Your task to perform on an android device: change notifications settings Image 0: 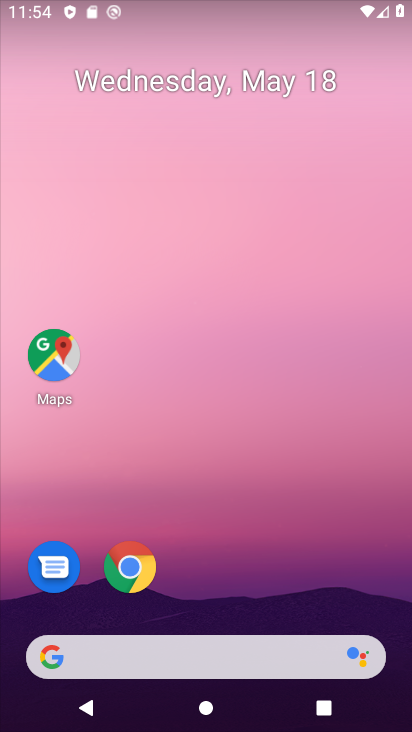
Step 0: drag from (192, 586) to (258, 312)
Your task to perform on an android device: change notifications settings Image 1: 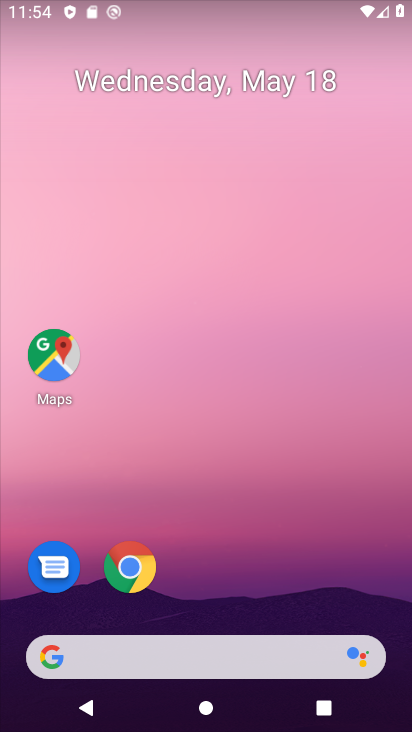
Step 1: drag from (258, 549) to (285, 204)
Your task to perform on an android device: change notifications settings Image 2: 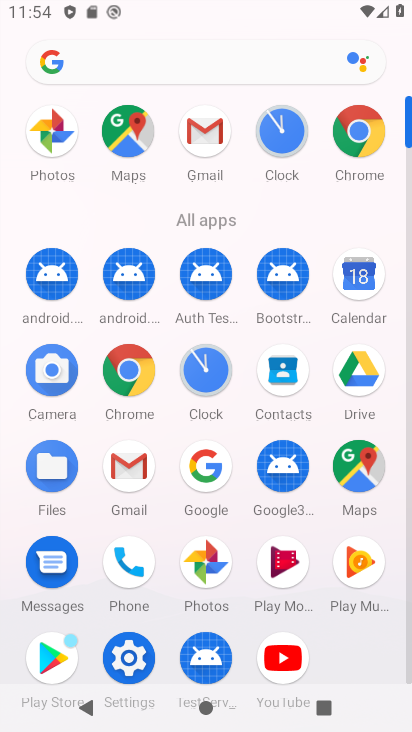
Step 2: click (132, 647)
Your task to perform on an android device: change notifications settings Image 3: 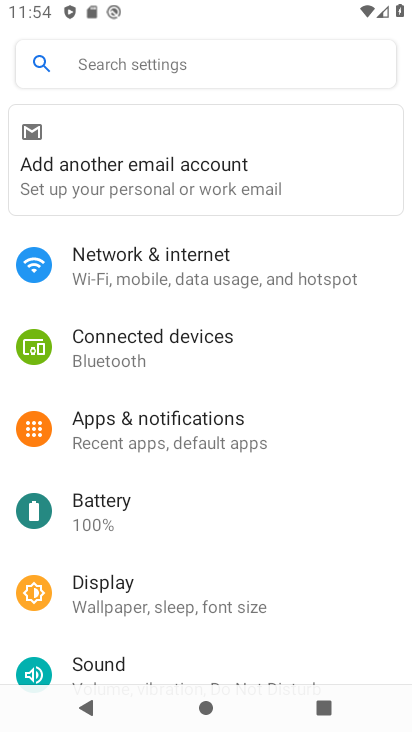
Step 3: drag from (258, 606) to (273, 439)
Your task to perform on an android device: change notifications settings Image 4: 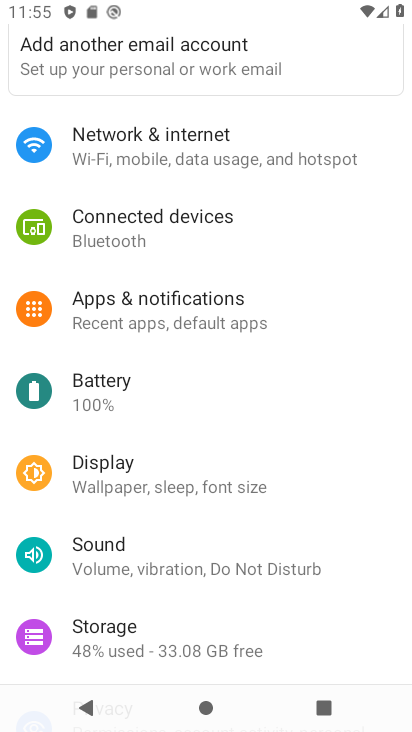
Step 4: click (174, 292)
Your task to perform on an android device: change notifications settings Image 5: 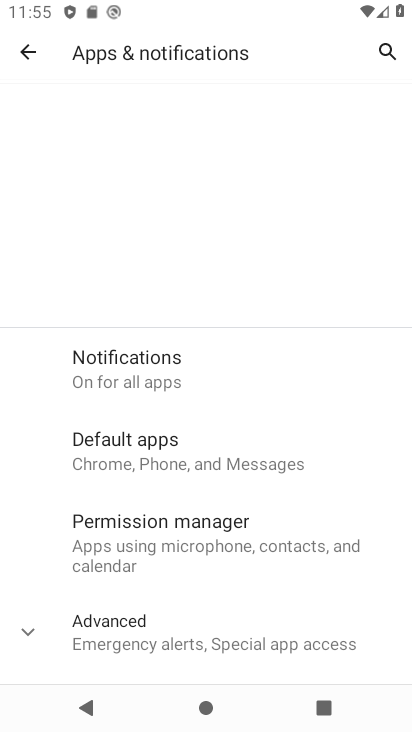
Step 5: click (158, 369)
Your task to perform on an android device: change notifications settings Image 6: 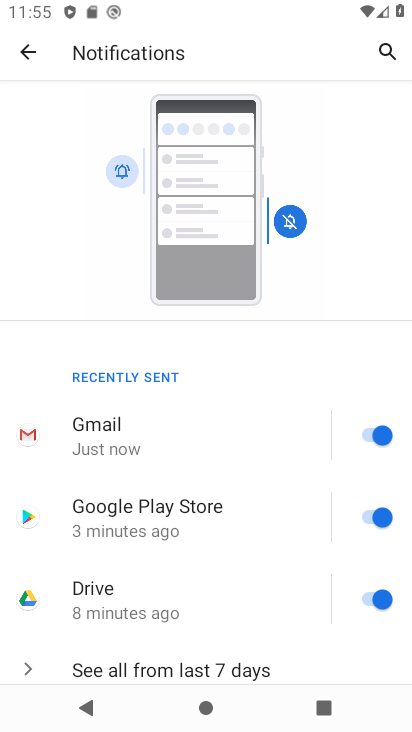
Step 6: drag from (211, 607) to (234, 503)
Your task to perform on an android device: change notifications settings Image 7: 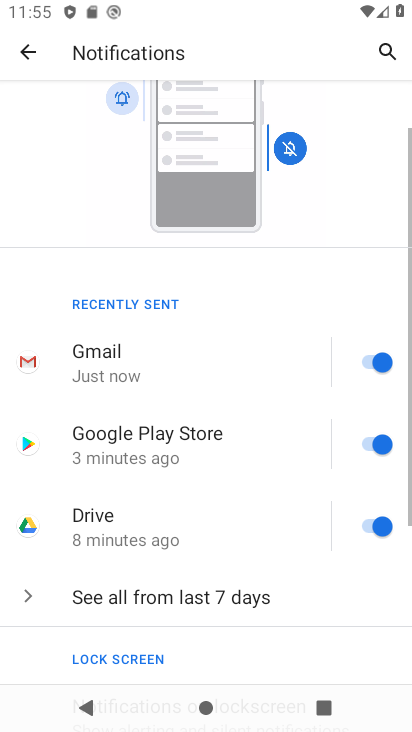
Step 7: drag from (242, 446) to (280, 260)
Your task to perform on an android device: change notifications settings Image 8: 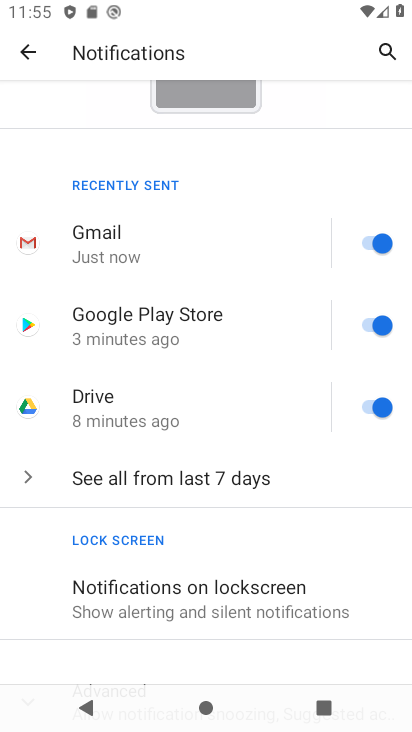
Step 8: click (176, 577)
Your task to perform on an android device: change notifications settings Image 9: 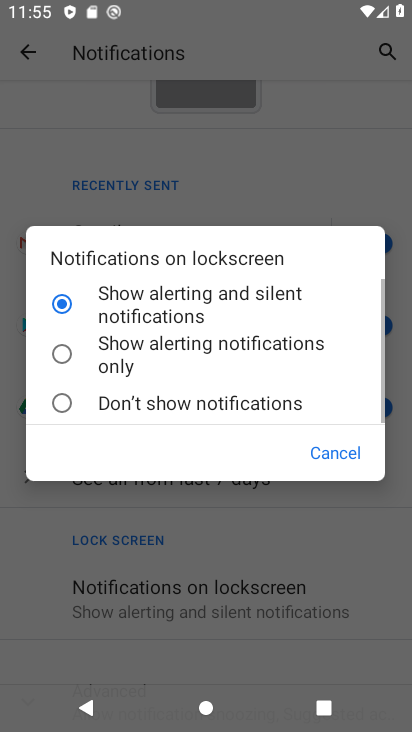
Step 9: task complete